Your task to perform on an android device: check storage Image 0: 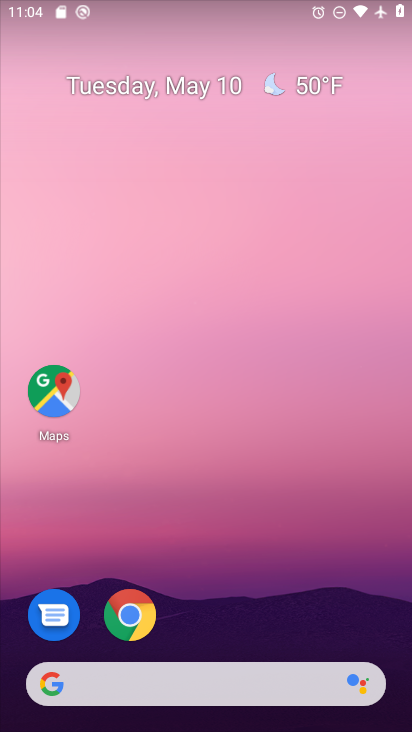
Step 0: drag from (390, 656) to (285, 57)
Your task to perform on an android device: check storage Image 1: 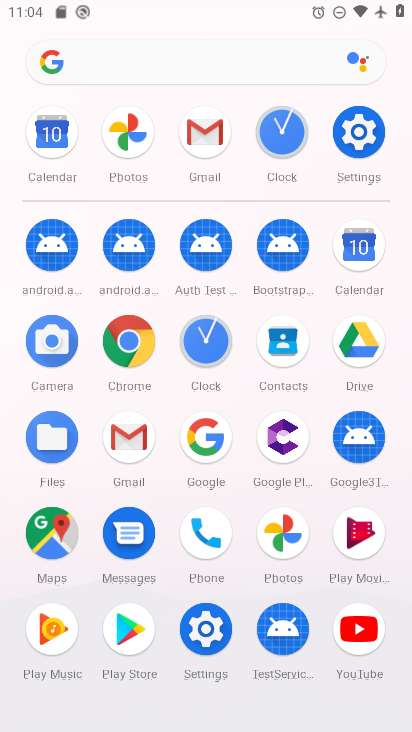
Step 1: click (201, 627)
Your task to perform on an android device: check storage Image 2: 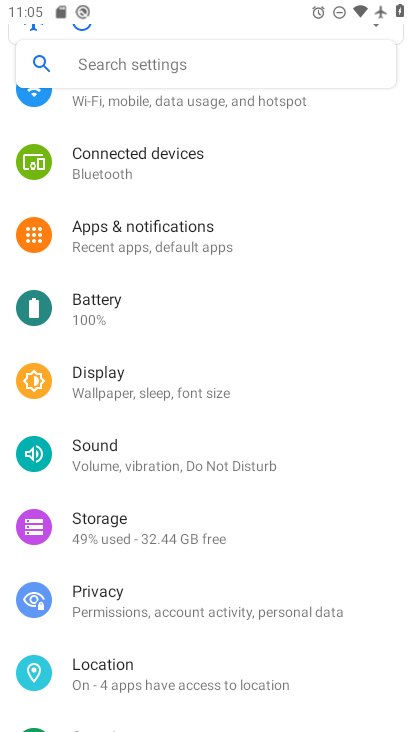
Step 2: click (124, 533)
Your task to perform on an android device: check storage Image 3: 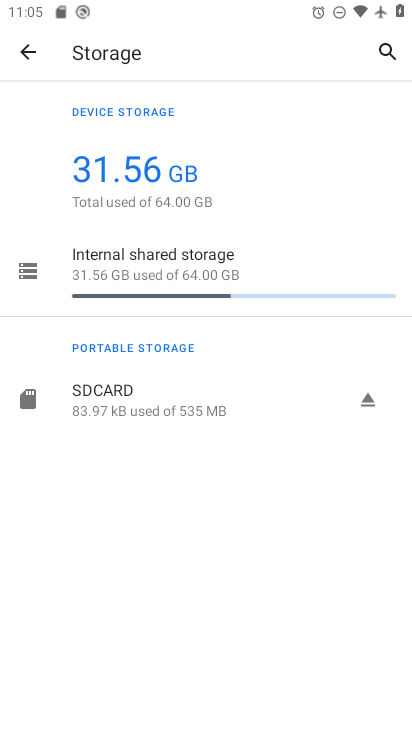
Step 3: task complete